Your task to perform on an android device: find which apps use the phone's location Image 0: 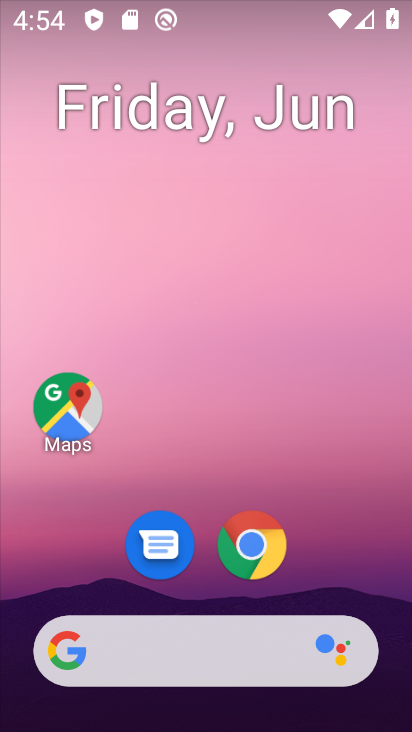
Step 0: drag from (245, 605) to (245, 276)
Your task to perform on an android device: find which apps use the phone's location Image 1: 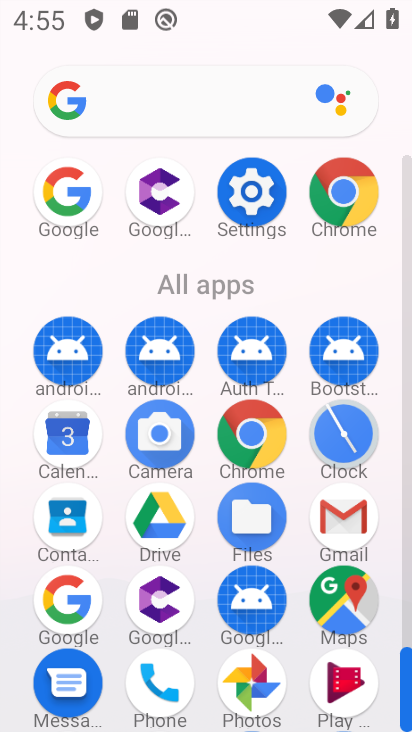
Step 1: click (245, 201)
Your task to perform on an android device: find which apps use the phone's location Image 2: 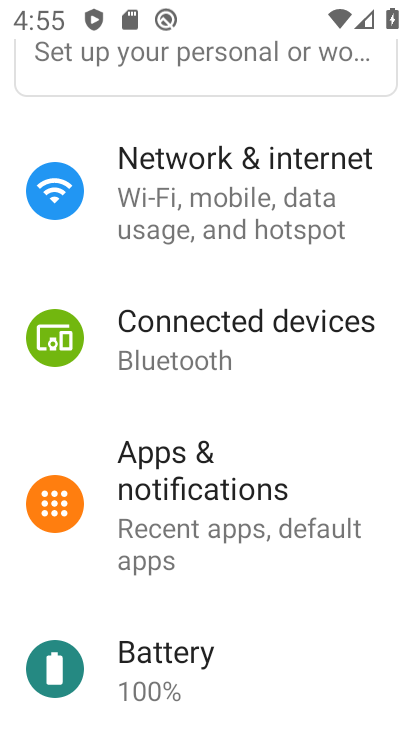
Step 2: drag from (198, 605) to (239, 287)
Your task to perform on an android device: find which apps use the phone's location Image 3: 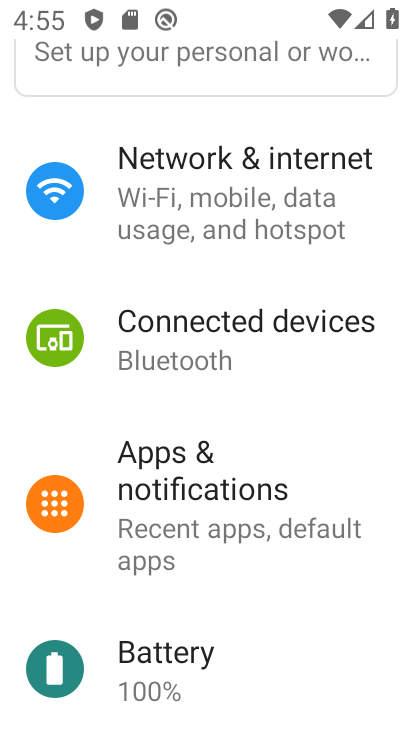
Step 3: drag from (266, 514) to (266, 381)
Your task to perform on an android device: find which apps use the phone's location Image 4: 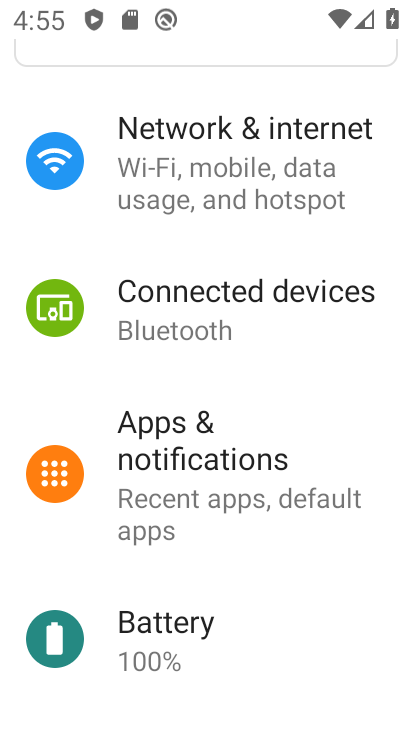
Step 4: click (190, 451)
Your task to perform on an android device: find which apps use the phone's location Image 5: 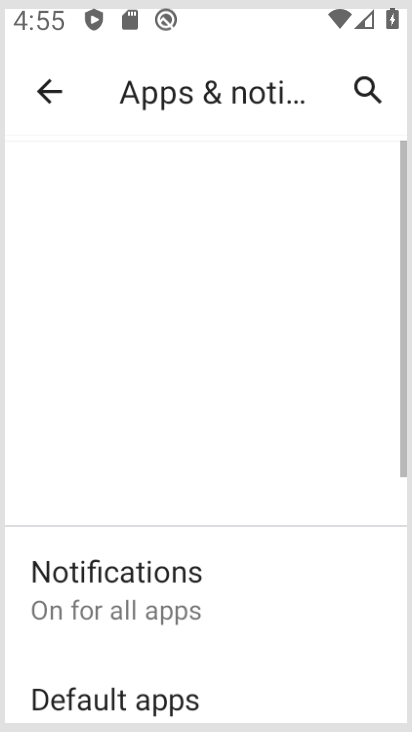
Step 5: click (216, 355)
Your task to perform on an android device: find which apps use the phone's location Image 6: 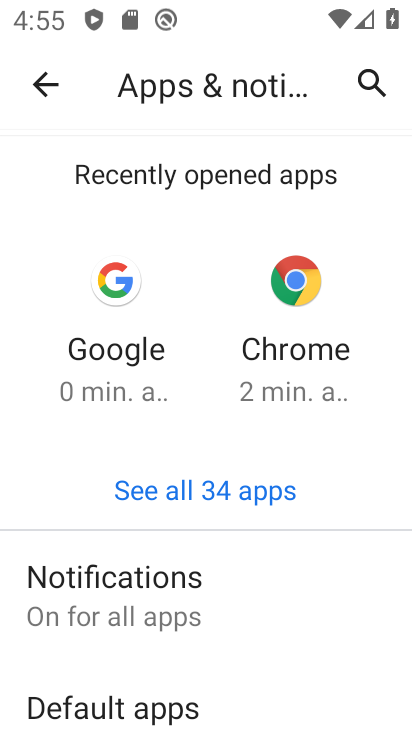
Step 6: press back button
Your task to perform on an android device: find which apps use the phone's location Image 7: 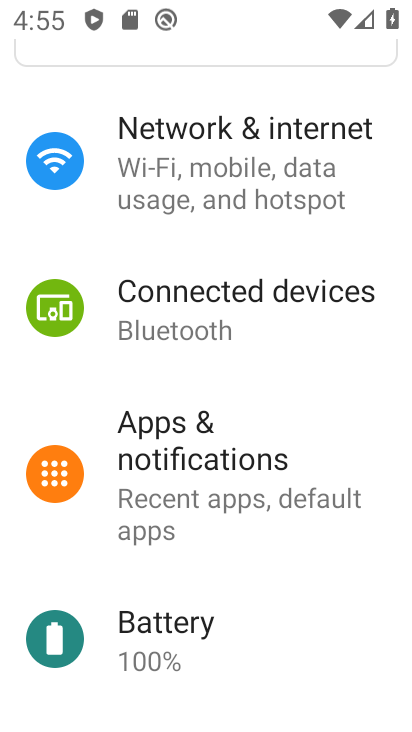
Step 7: drag from (210, 657) to (207, 237)
Your task to perform on an android device: find which apps use the phone's location Image 8: 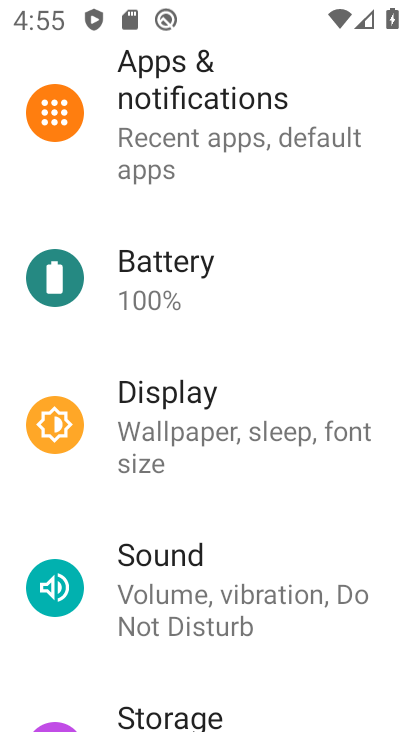
Step 8: drag from (195, 645) to (204, 305)
Your task to perform on an android device: find which apps use the phone's location Image 9: 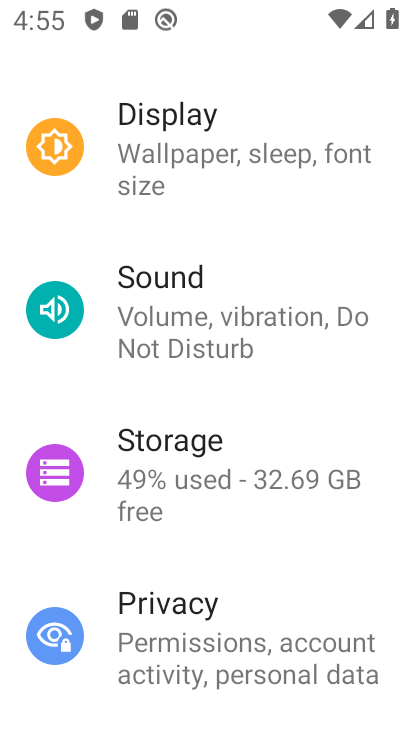
Step 9: drag from (168, 639) to (170, 291)
Your task to perform on an android device: find which apps use the phone's location Image 10: 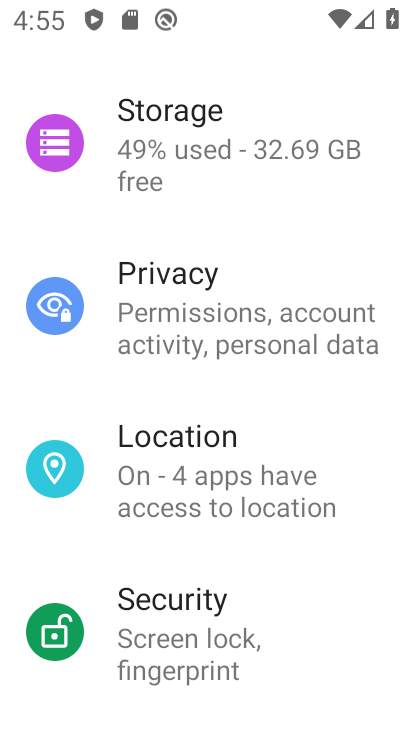
Step 10: click (160, 475)
Your task to perform on an android device: find which apps use the phone's location Image 11: 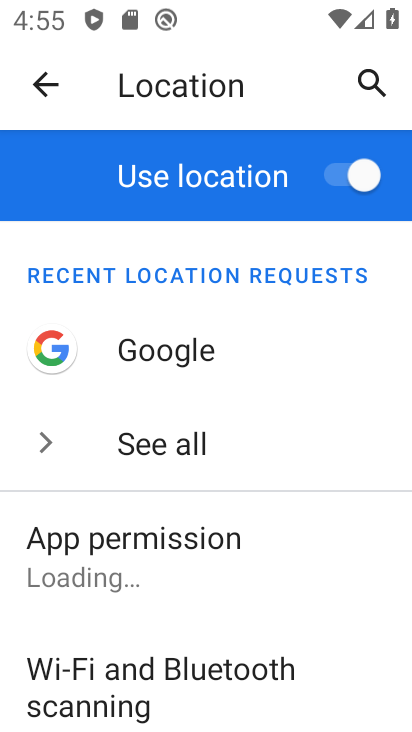
Step 11: drag from (202, 721) to (200, 450)
Your task to perform on an android device: find which apps use the phone's location Image 12: 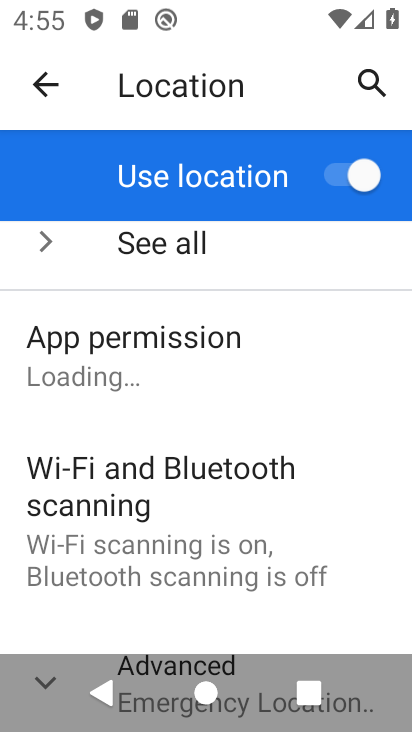
Step 12: drag from (147, 629) to (137, 367)
Your task to perform on an android device: find which apps use the phone's location Image 13: 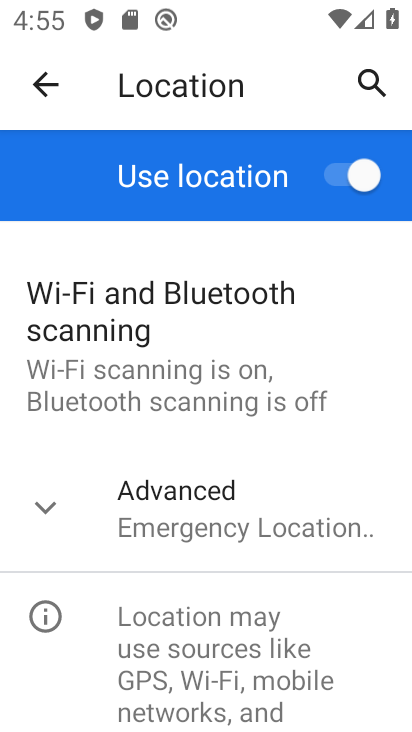
Step 13: click (178, 524)
Your task to perform on an android device: find which apps use the phone's location Image 14: 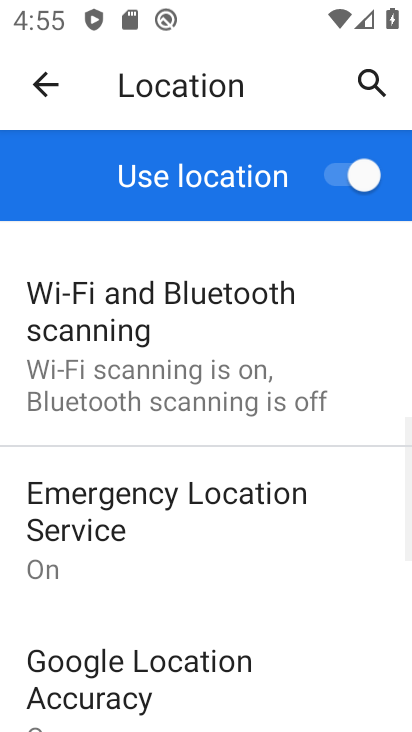
Step 14: task complete